Your task to perform on an android device: change the clock display to show seconds Image 0: 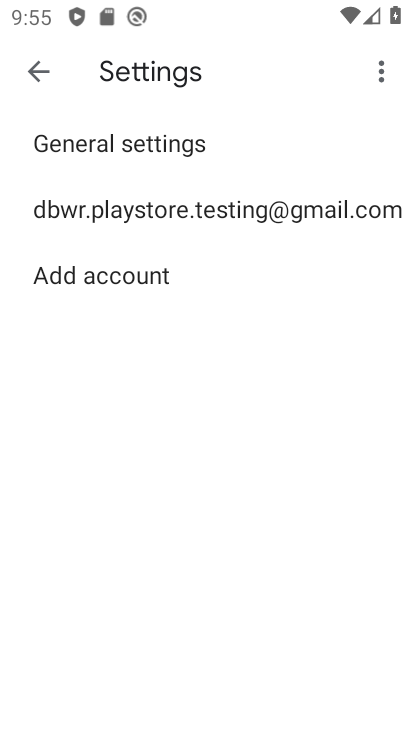
Step 0: press home button
Your task to perform on an android device: change the clock display to show seconds Image 1: 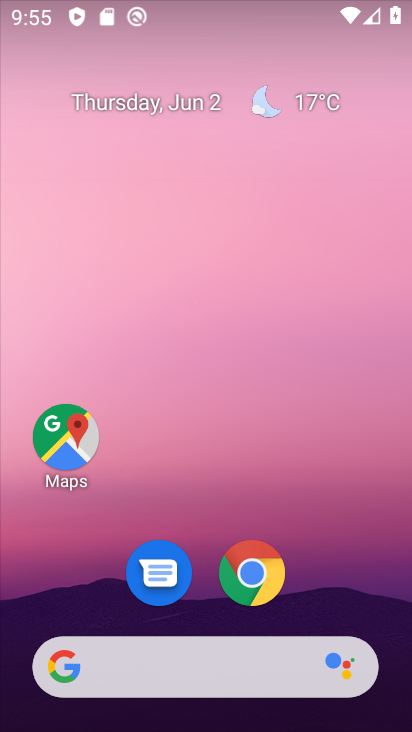
Step 1: drag from (365, 496) to (309, 34)
Your task to perform on an android device: change the clock display to show seconds Image 2: 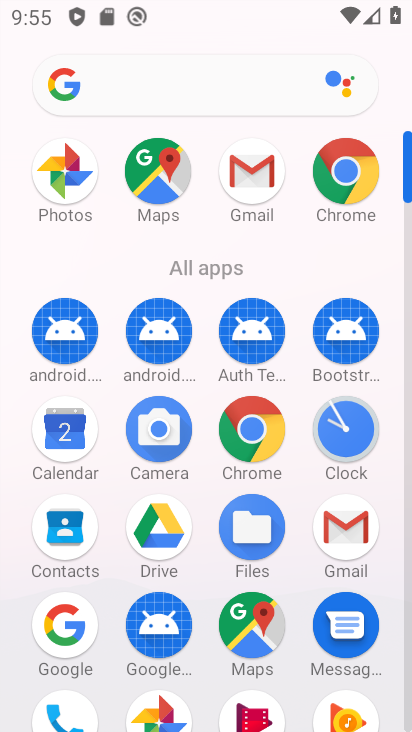
Step 2: drag from (398, 578) to (410, 27)
Your task to perform on an android device: change the clock display to show seconds Image 3: 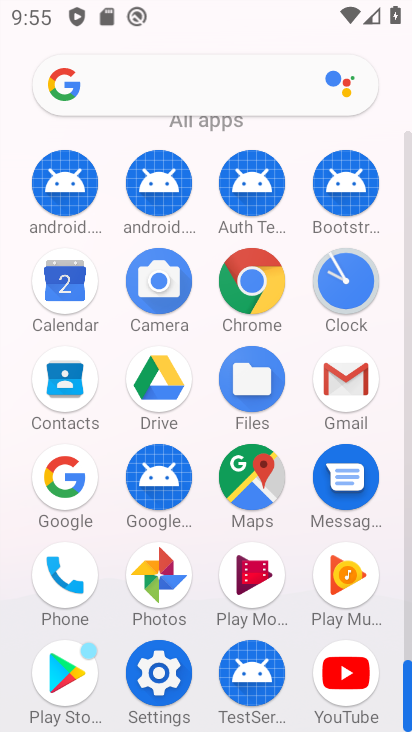
Step 3: click (355, 296)
Your task to perform on an android device: change the clock display to show seconds Image 4: 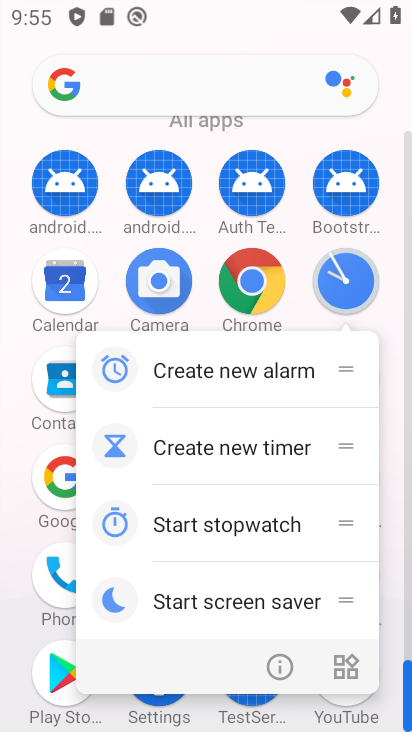
Step 4: click (355, 289)
Your task to perform on an android device: change the clock display to show seconds Image 5: 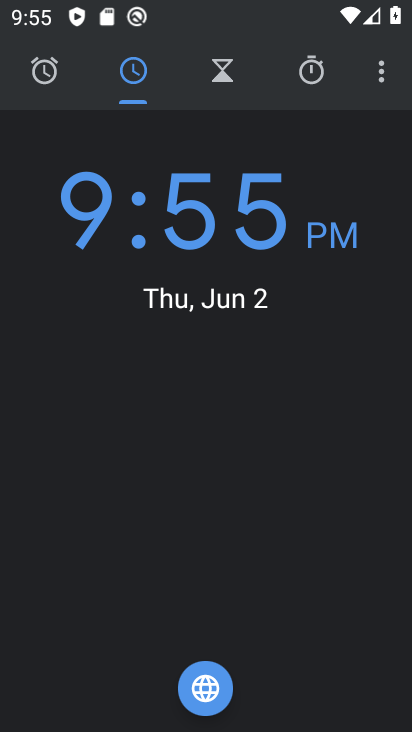
Step 5: click (377, 70)
Your task to perform on an android device: change the clock display to show seconds Image 6: 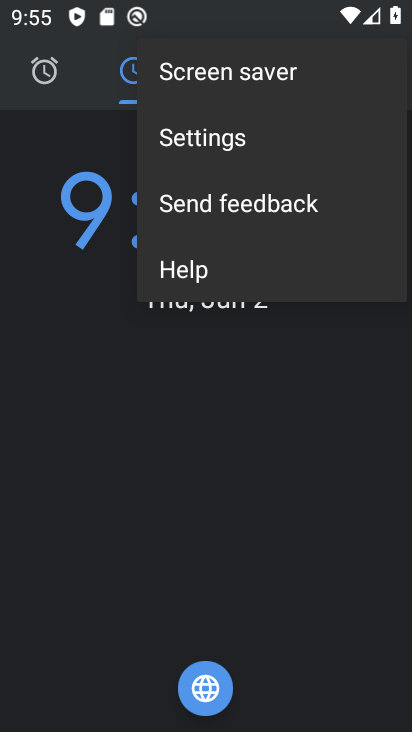
Step 6: click (207, 151)
Your task to perform on an android device: change the clock display to show seconds Image 7: 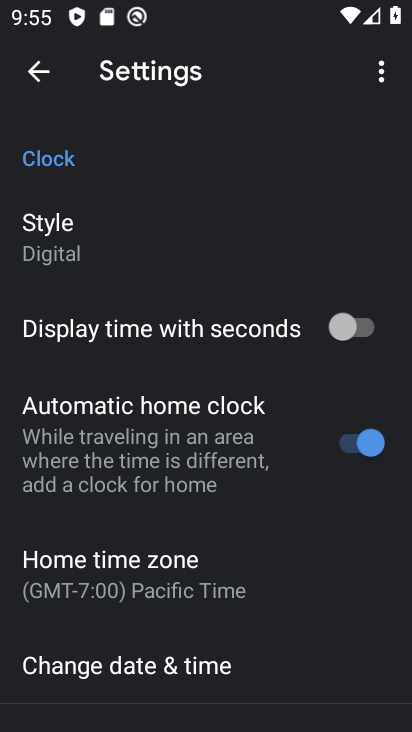
Step 7: click (323, 322)
Your task to perform on an android device: change the clock display to show seconds Image 8: 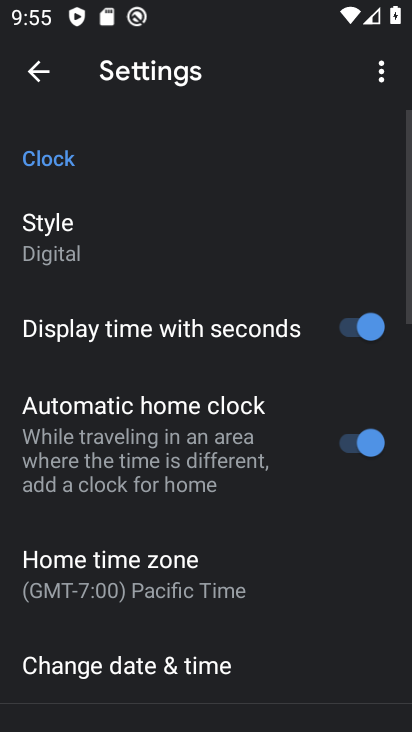
Step 8: task complete